Your task to perform on an android device: toggle notifications settings in the gmail app Image 0: 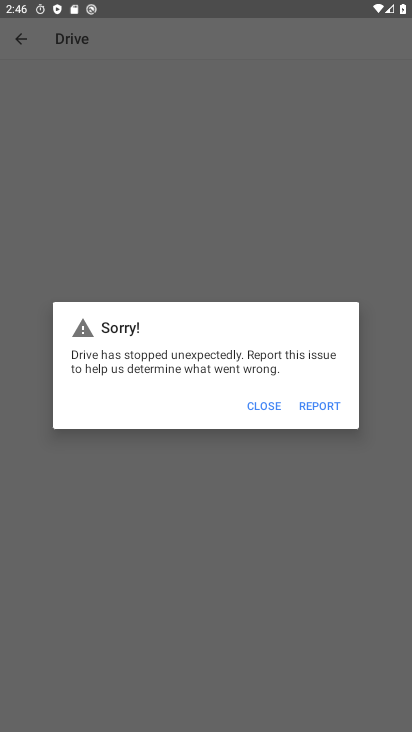
Step 0: press home button
Your task to perform on an android device: toggle notifications settings in the gmail app Image 1: 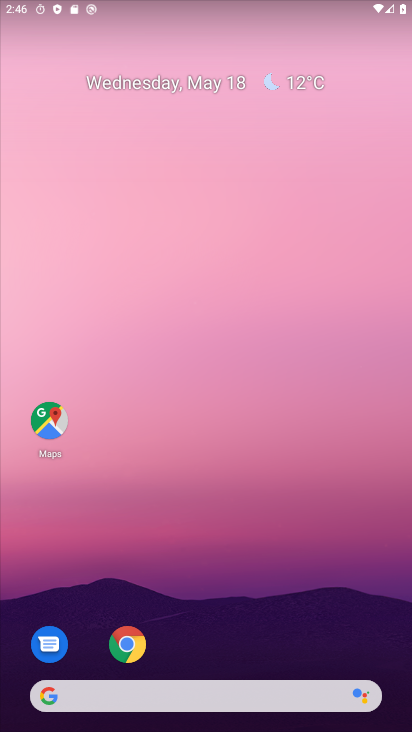
Step 1: drag from (395, 642) to (396, 139)
Your task to perform on an android device: toggle notifications settings in the gmail app Image 2: 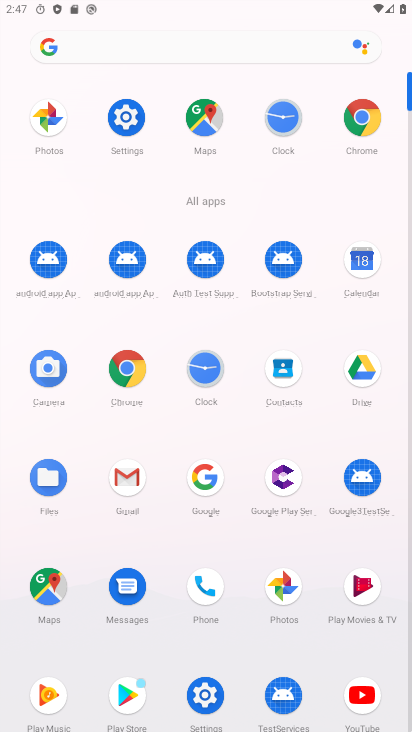
Step 2: click (125, 467)
Your task to perform on an android device: toggle notifications settings in the gmail app Image 3: 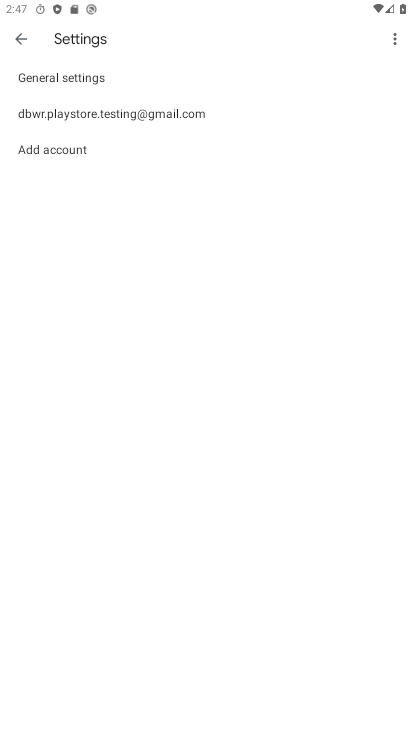
Step 3: click (39, 78)
Your task to perform on an android device: toggle notifications settings in the gmail app Image 4: 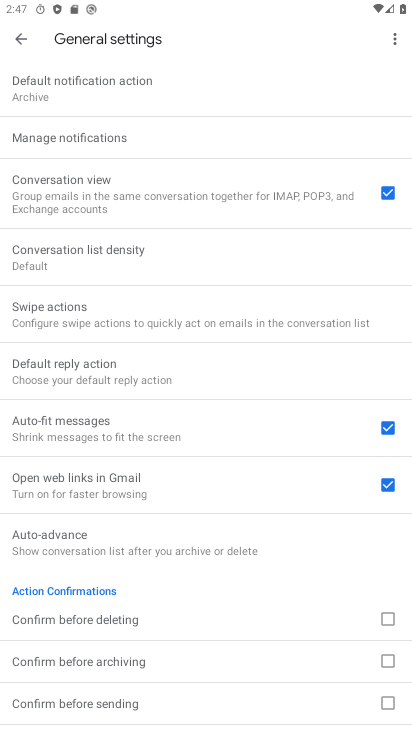
Step 4: click (51, 73)
Your task to perform on an android device: toggle notifications settings in the gmail app Image 5: 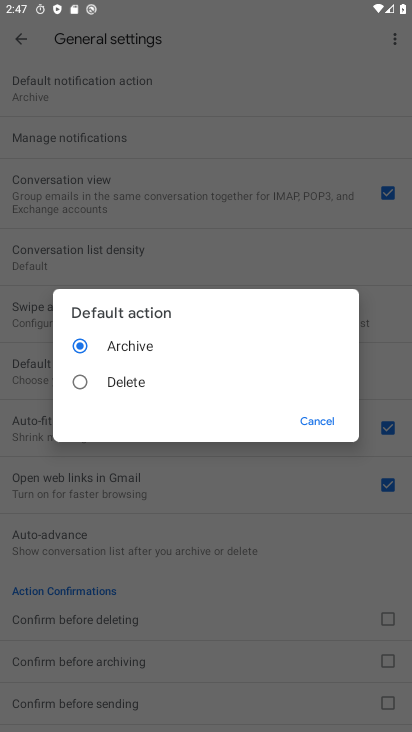
Step 5: press home button
Your task to perform on an android device: toggle notifications settings in the gmail app Image 6: 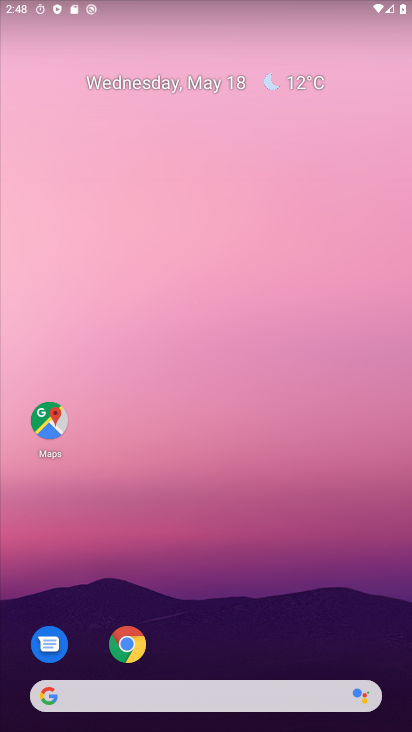
Step 6: drag from (399, 685) to (363, 419)
Your task to perform on an android device: toggle notifications settings in the gmail app Image 7: 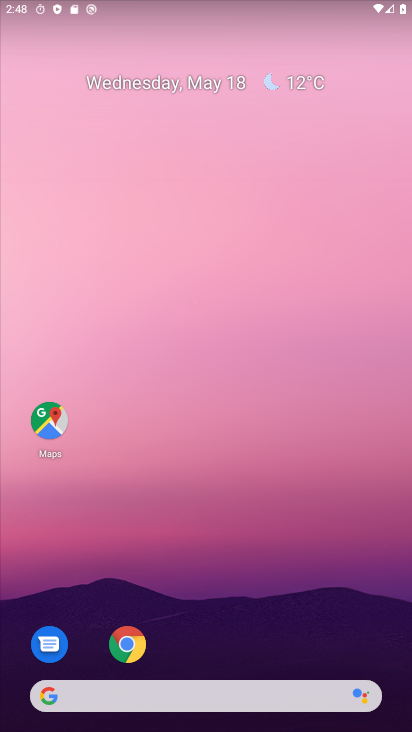
Step 7: drag from (385, 597) to (301, 3)
Your task to perform on an android device: toggle notifications settings in the gmail app Image 8: 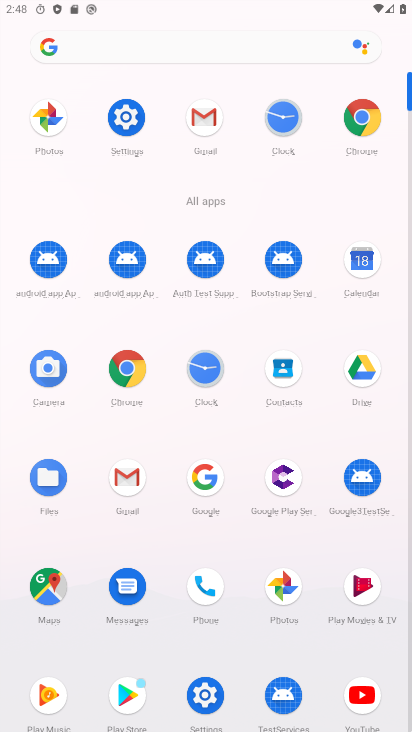
Step 8: click (132, 481)
Your task to perform on an android device: toggle notifications settings in the gmail app Image 9: 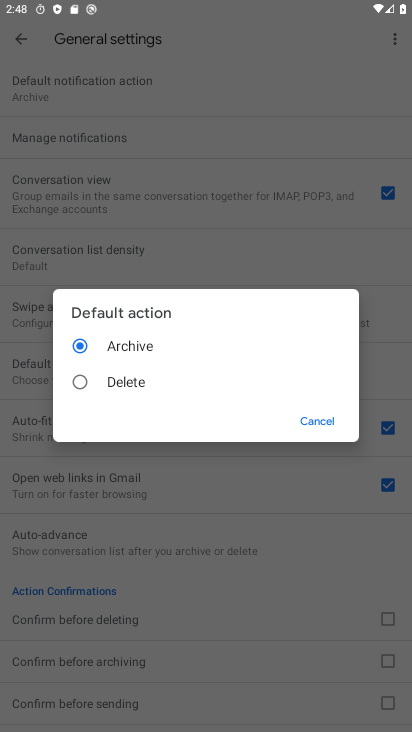
Step 9: click (313, 411)
Your task to perform on an android device: toggle notifications settings in the gmail app Image 10: 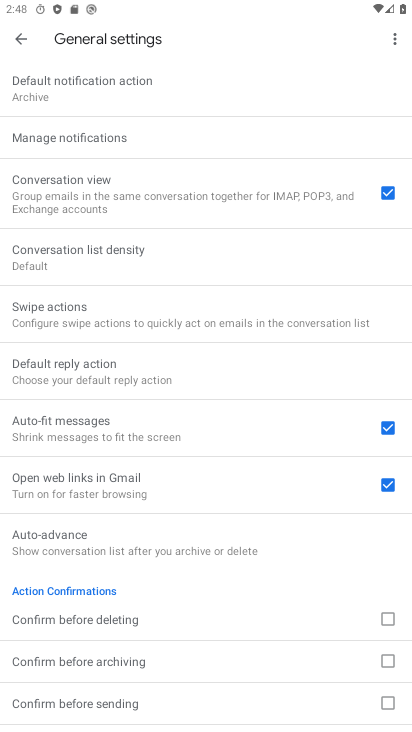
Step 10: click (78, 141)
Your task to perform on an android device: toggle notifications settings in the gmail app Image 11: 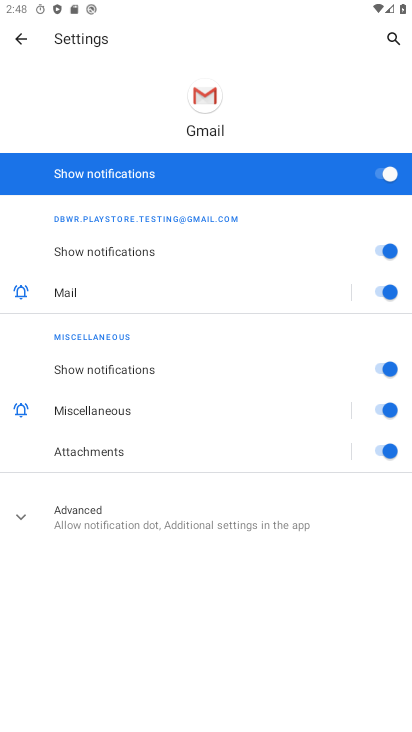
Step 11: click (381, 171)
Your task to perform on an android device: toggle notifications settings in the gmail app Image 12: 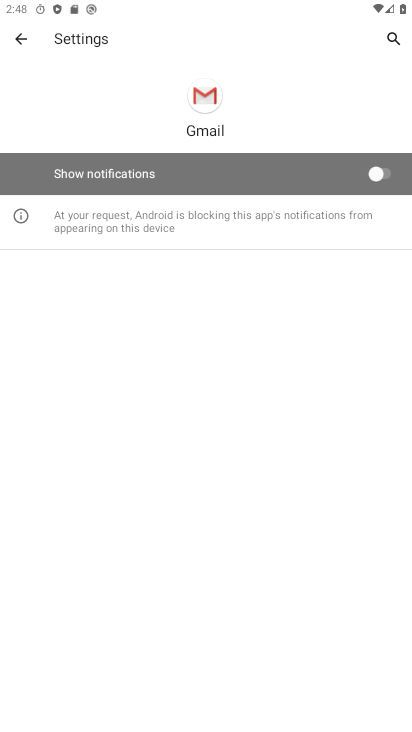
Step 12: task complete